Your task to perform on an android device: create a new album in the google photos Image 0: 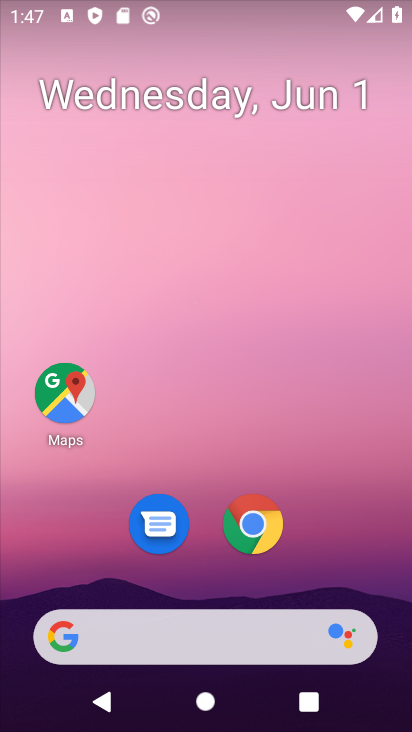
Step 0: drag from (326, 535) to (315, 37)
Your task to perform on an android device: create a new album in the google photos Image 1: 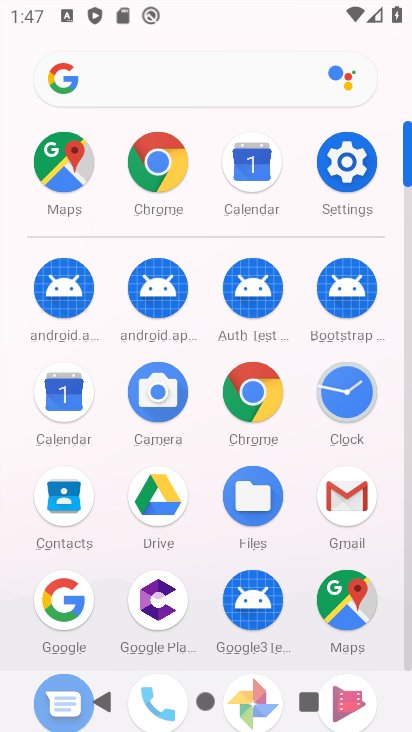
Step 1: drag from (302, 395) to (279, 192)
Your task to perform on an android device: create a new album in the google photos Image 2: 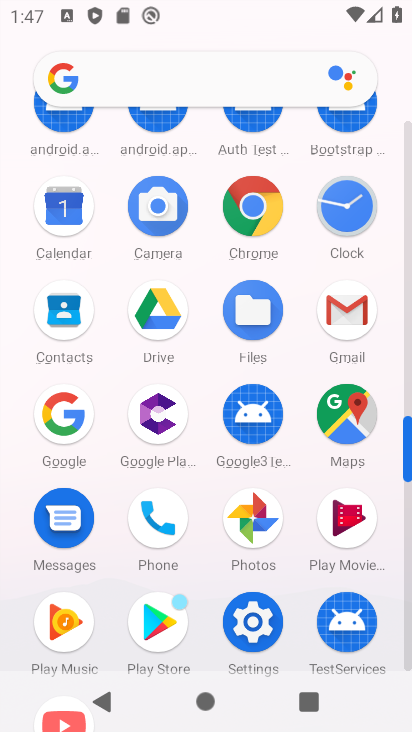
Step 2: click (260, 488)
Your task to perform on an android device: create a new album in the google photos Image 3: 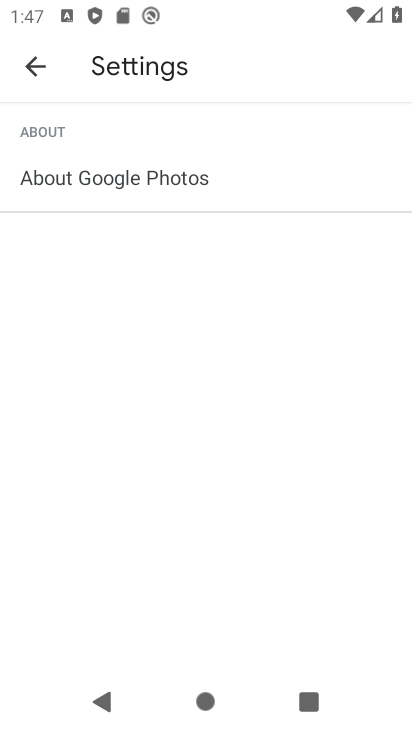
Step 3: click (32, 58)
Your task to perform on an android device: create a new album in the google photos Image 4: 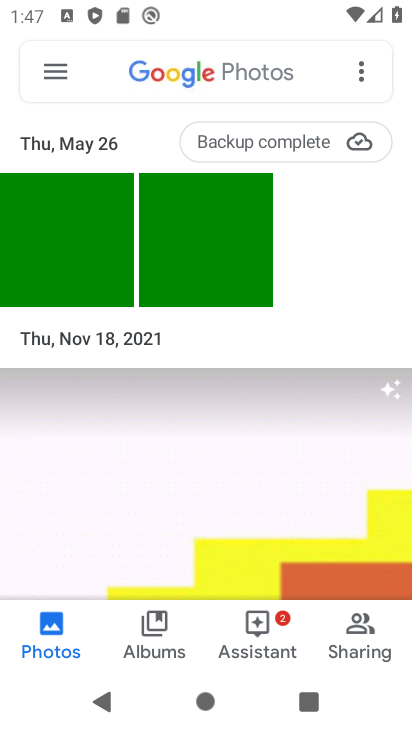
Step 4: click (156, 622)
Your task to perform on an android device: create a new album in the google photos Image 5: 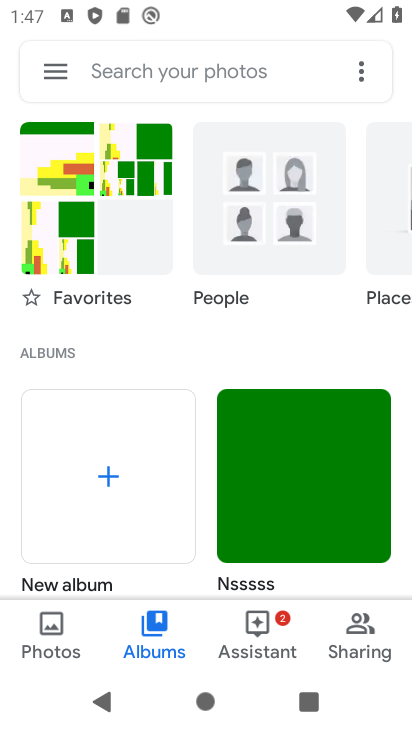
Step 5: click (98, 469)
Your task to perform on an android device: create a new album in the google photos Image 6: 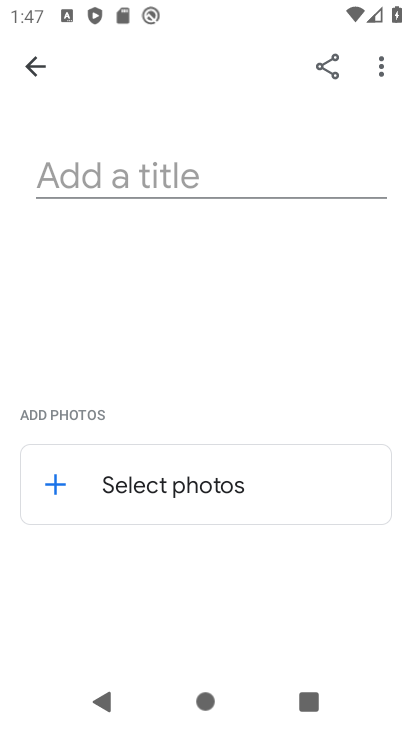
Step 6: click (164, 168)
Your task to perform on an android device: create a new album in the google photos Image 7: 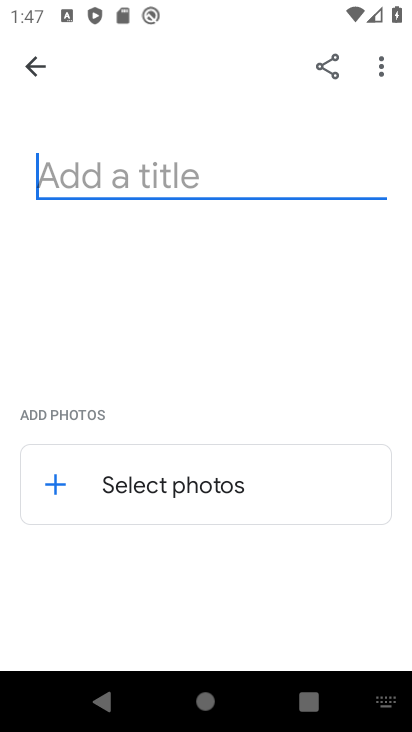
Step 7: type "Kamakhya Temple"
Your task to perform on an android device: create a new album in the google photos Image 8: 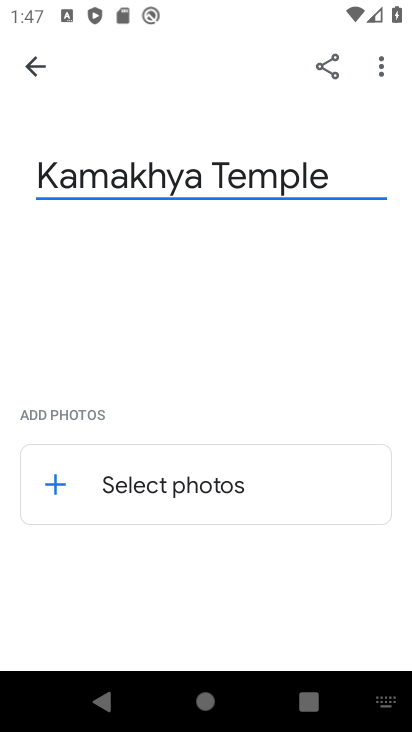
Step 8: click (51, 479)
Your task to perform on an android device: create a new album in the google photos Image 9: 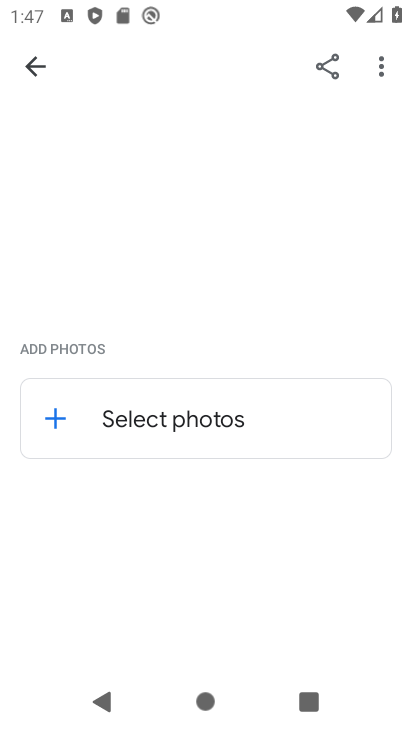
Step 9: click (59, 414)
Your task to perform on an android device: create a new album in the google photos Image 10: 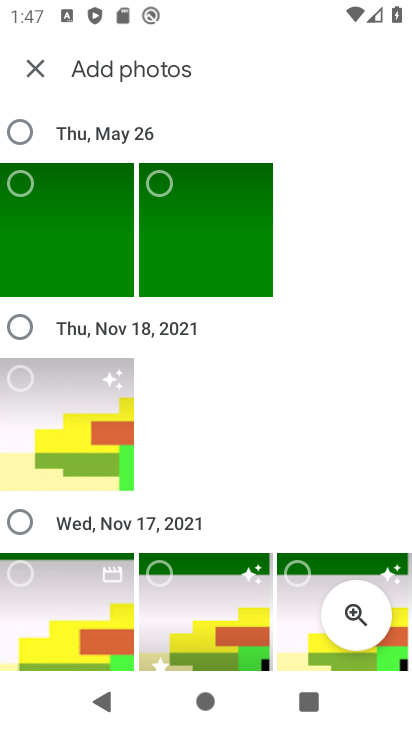
Step 10: click (19, 327)
Your task to perform on an android device: create a new album in the google photos Image 11: 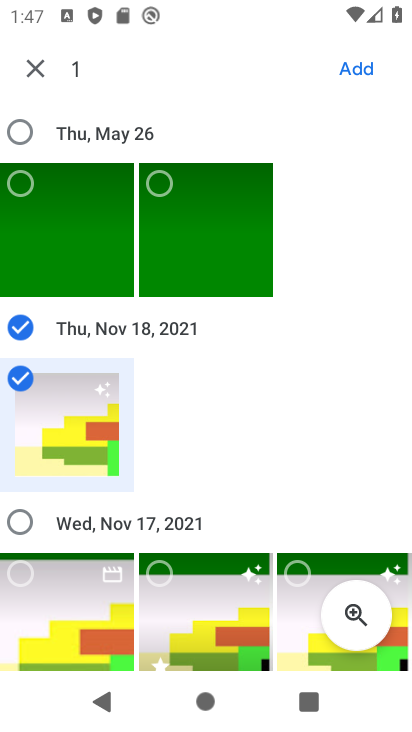
Step 11: click (361, 68)
Your task to perform on an android device: create a new album in the google photos Image 12: 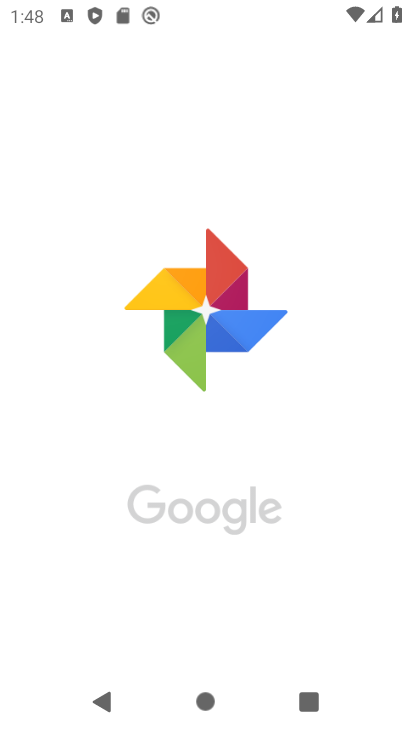
Step 12: task complete